Your task to perform on an android device: change notifications settings Image 0: 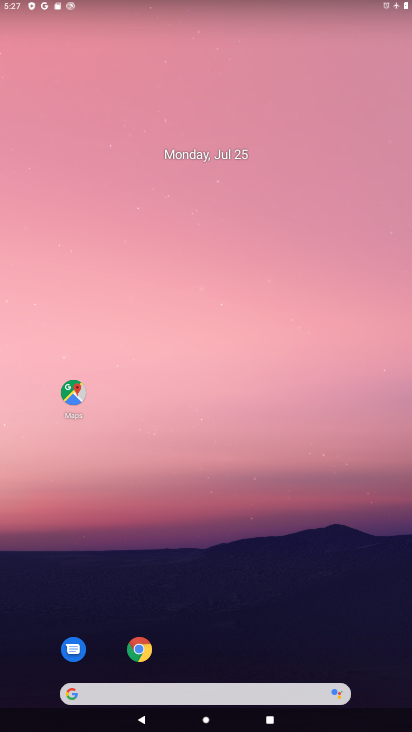
Step 0: drag from (254, 670) to (272, 86)
Your task to perform on an android device: change notifications settings Image 1: 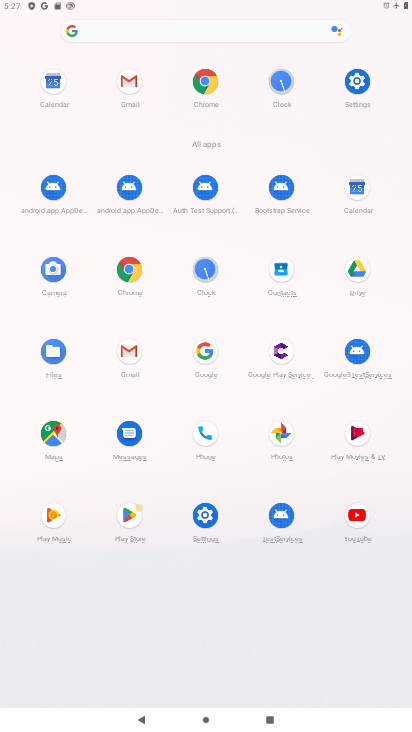
Step 1: click (203, 516)
Your task to perform on an android device: change notifications settings Image 2: 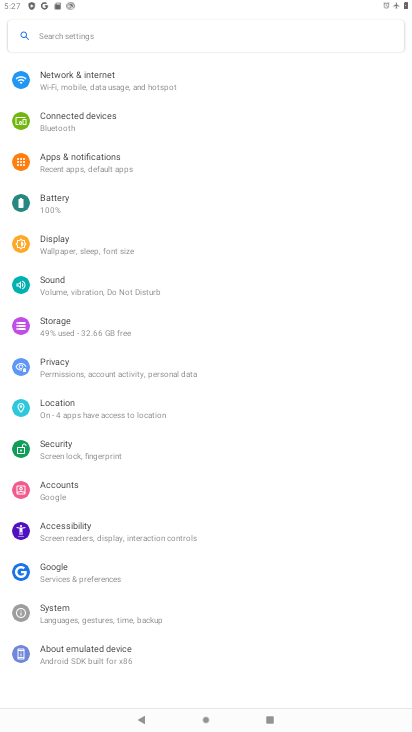
Step 2: click (69, 156)
Your task to perform on an android device: change notifications settings Image 3: 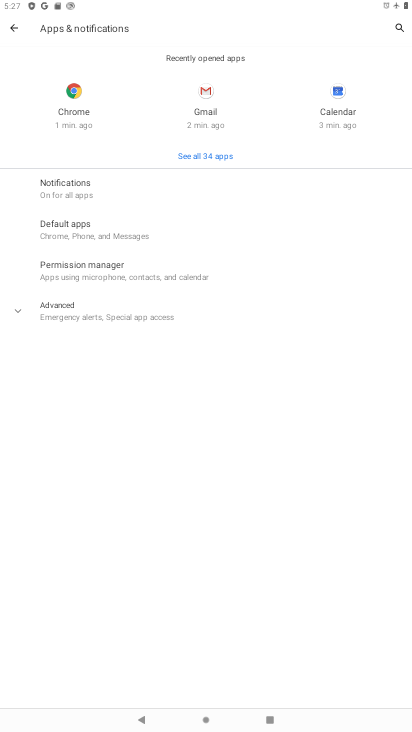
Step 3: click (88, 202)
Your task to perform on an android device: change notifications settings Image 4: 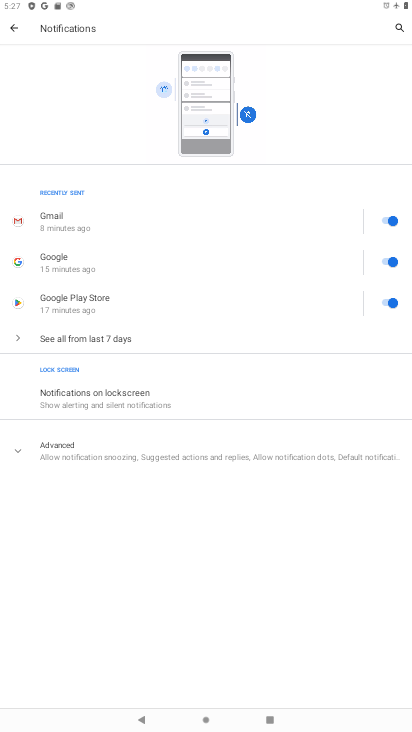
Step 4: click (386, 221)
Your task to perform on an android device: change notifications settings Image 5: 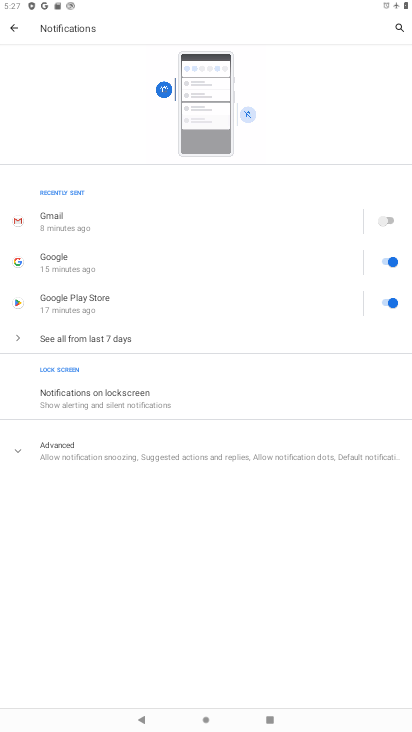
Step 5: task complete